Your task to perform on an android device: What is the recent news? Image 0: 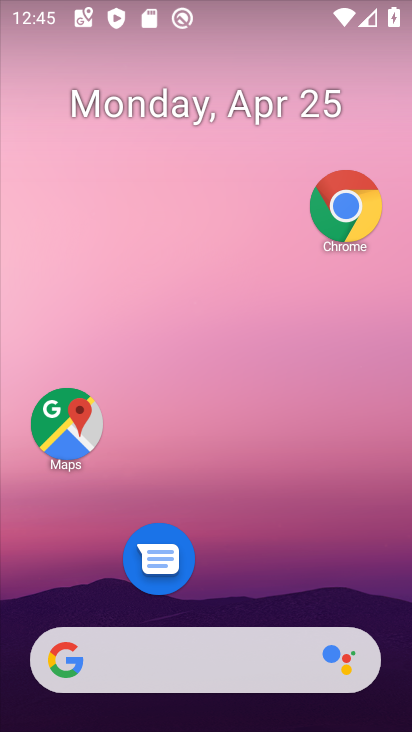
Step 0: click (183, 653)
Your task to perform on an android device: What is the recent news? Image 1: 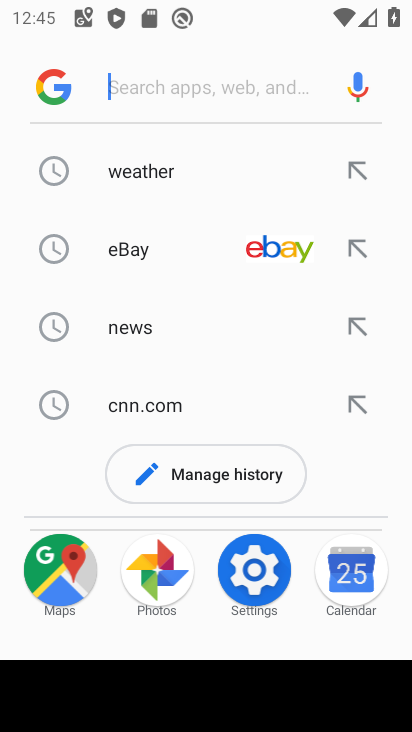
Step 1: click (138, 80)
Your task to perform on an android device: What is the recent news? Image 2: 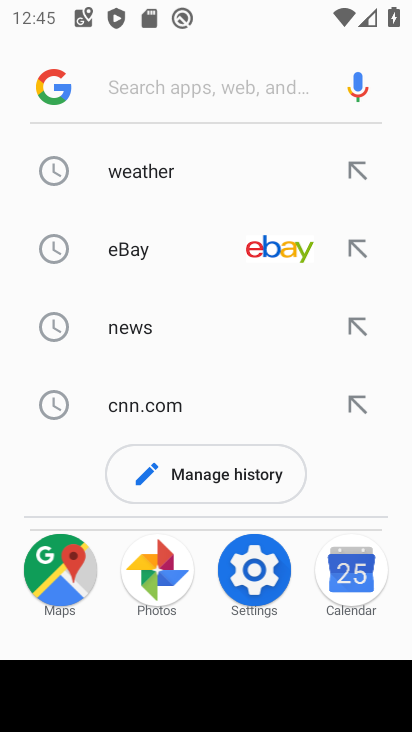
Step 2: click (136, 335)
Your task to perform on an android device: What is the recent news? Image 3: 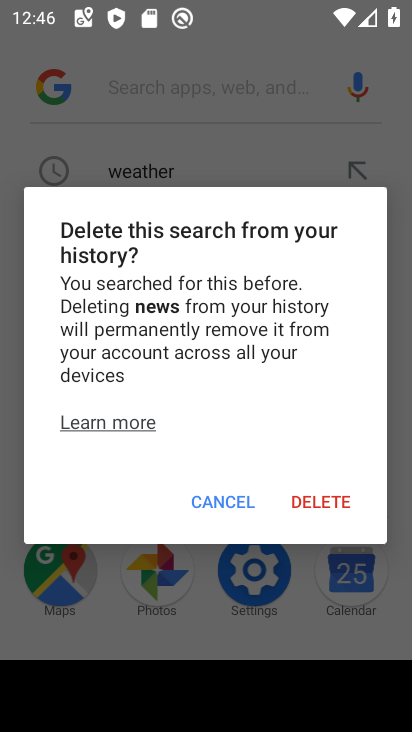
Step 3: click (211, 488)
Your task to perform on an android device: What is the recent news? Image 4: 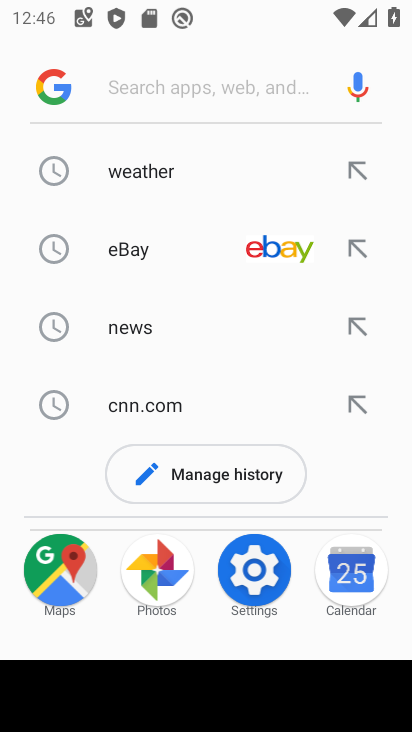
Step 4: click (128, 337)
Your task to perform on an android device: What is the recent news? Image 5: 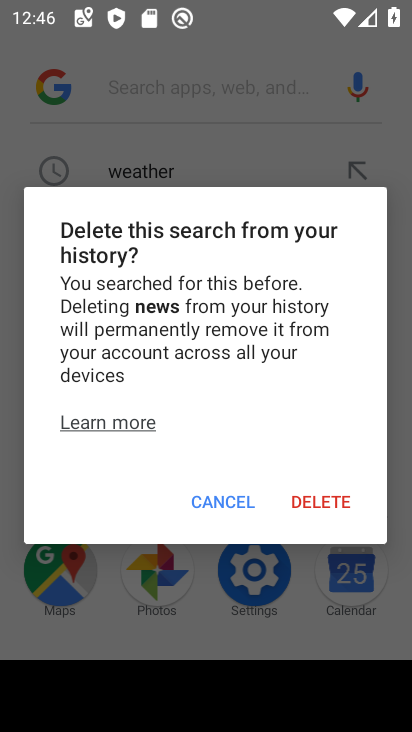
Step 5: click (209, 499)
Your task to perform on an android device: What is the recent news? Image 6: 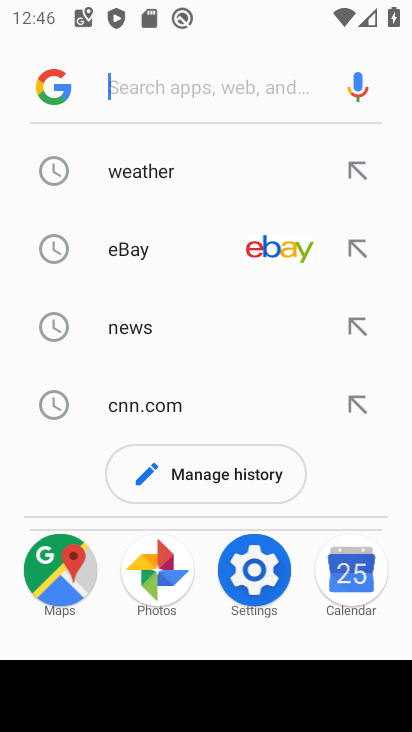
Step 6: click (128, 333)
Your task to perform on an android device: What is the recent news? Image 7: 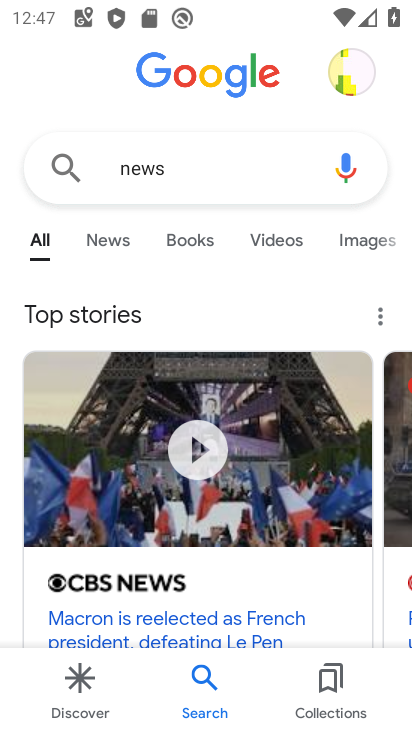
Step 7: task complete